Your task to perform on an android device: Turn on the flashlight Image 0: 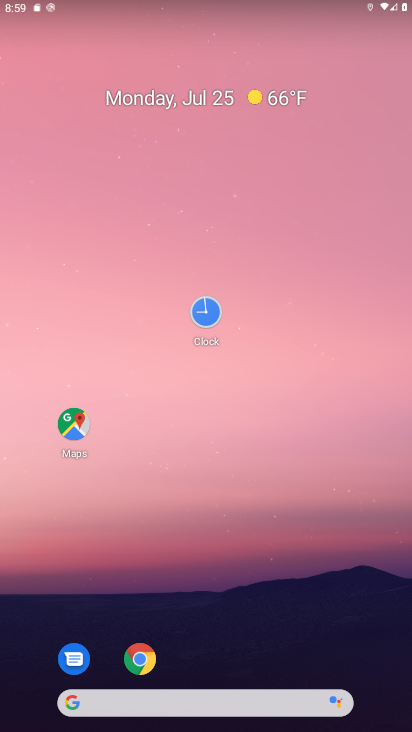
Step 0: drag from (229, 586) to (132, 132)
Your task to perform on an android device: Turn on the flashlight Image 1: 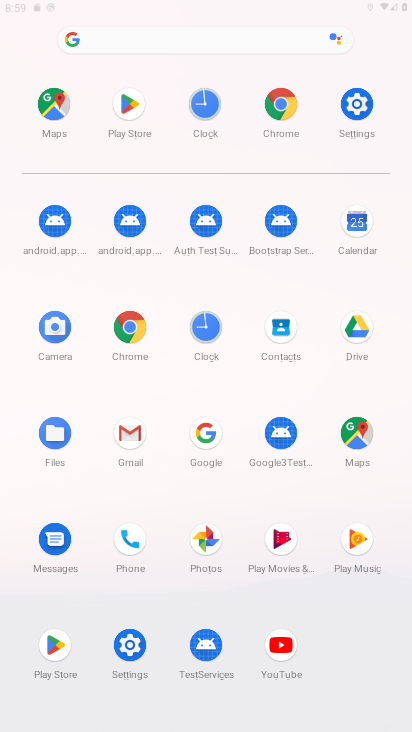
Step 1: task complete